Your task to perform on an android device: See recent photos Image 0: 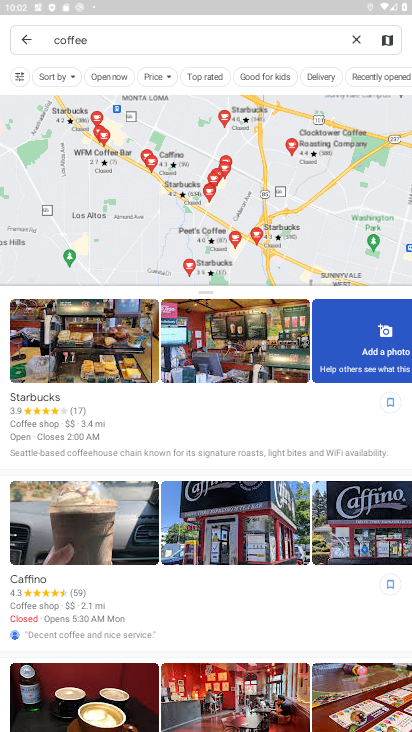
Step 0: task complete